Your task to perform on an android device: turn on the 24-hour format for clock Image 0: 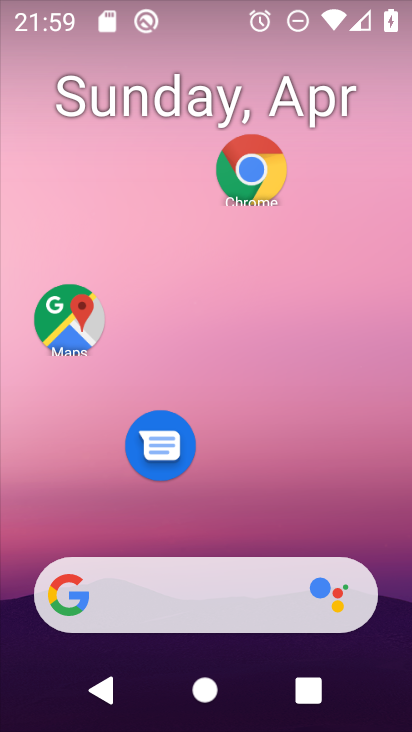
Step 0: drag from (253, 451) to (307, 36)
Your task to perform on an android device: turn on the 24-hour format for clock Image 1: 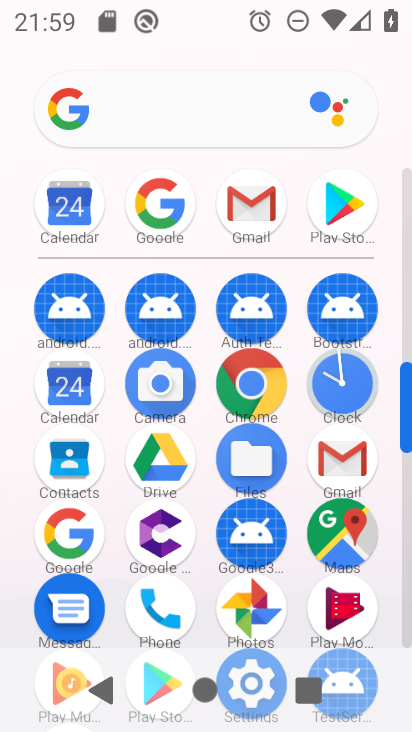
Step 1: click (341, 386)
Your task to perform on an android device: turn on the 24-hour format for clock Image 2: 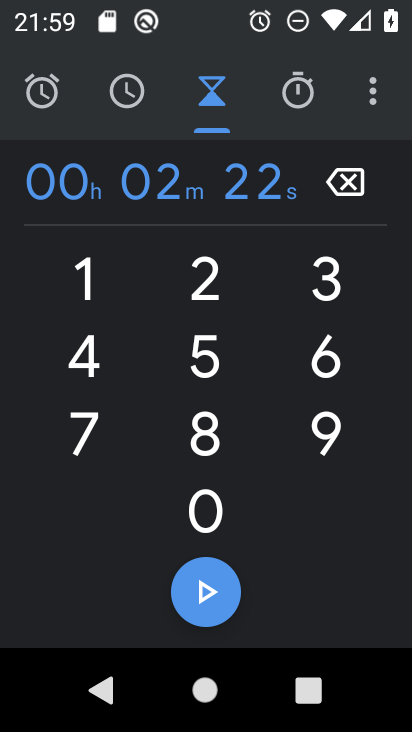
Step 2: click (375, 86)
Your task to perform on an android device: turn on the 24-hour format for clock Image 3: 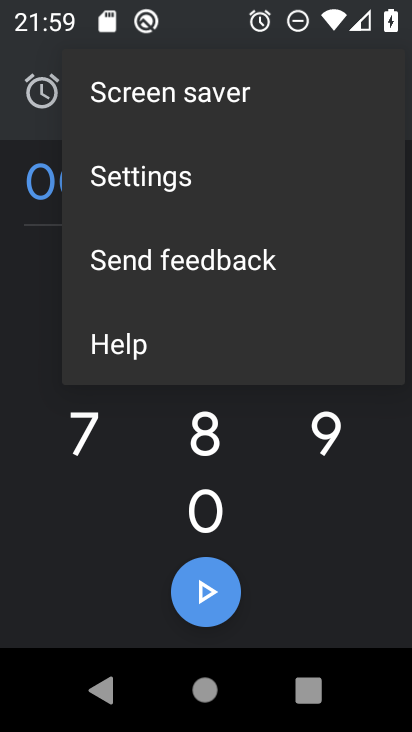
Step 3: click (230, 173)
Your task to perform on an android device: turn on the 24-hour format for clock Image 4: 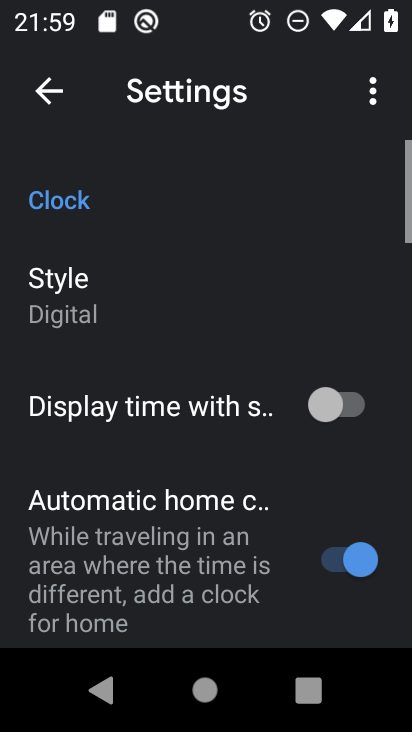
Step 4: drag from (240, 536) to (254, 73)
Your task to perform on an android device: turn on the 24-hour format for clock Image 5: 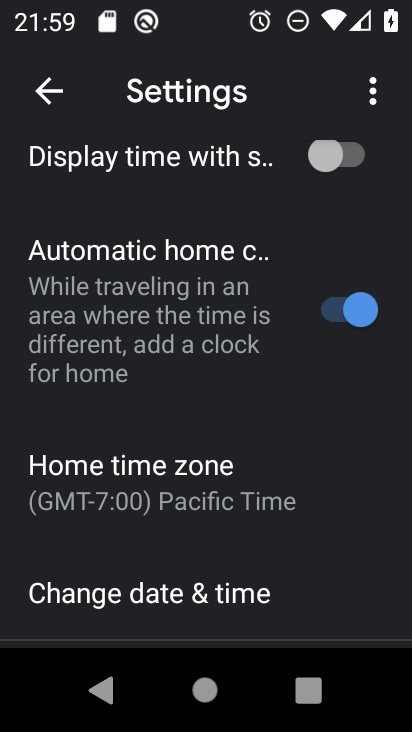
Step 5: click (208, 587)
Your task to perform on an android device: turn on the 24-hour format for clock Image 6: 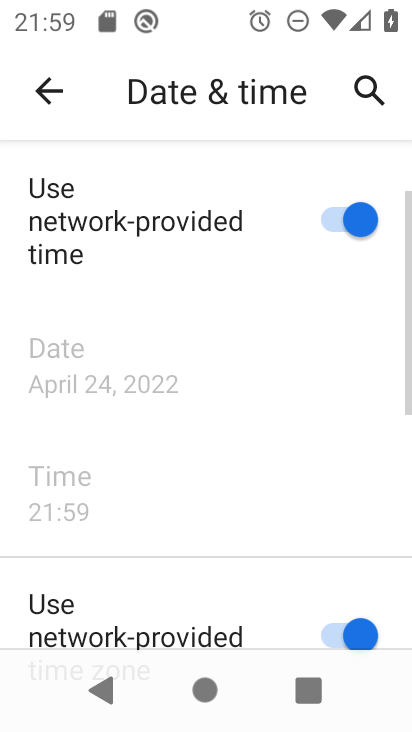
Step 6: task complete